Your task to perform on an android device: search for starred emails in the gmail app Image 0: 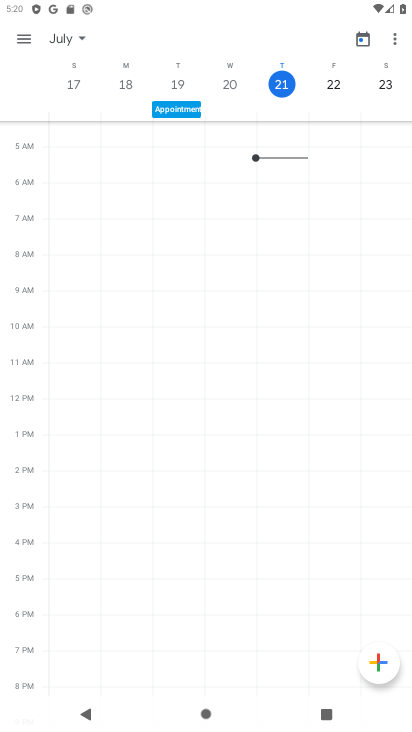
Step 0: press home button
Your task to perform on an android device: search for starred emails in the gmail app Image 1: 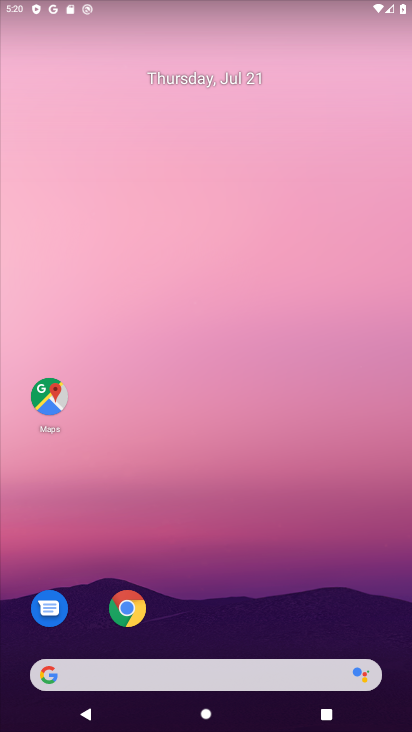
Step 1: drag from (225, 561) to (197, 167)
Your task to perform on an android device: search for starred emails in the gmail app Image 2: 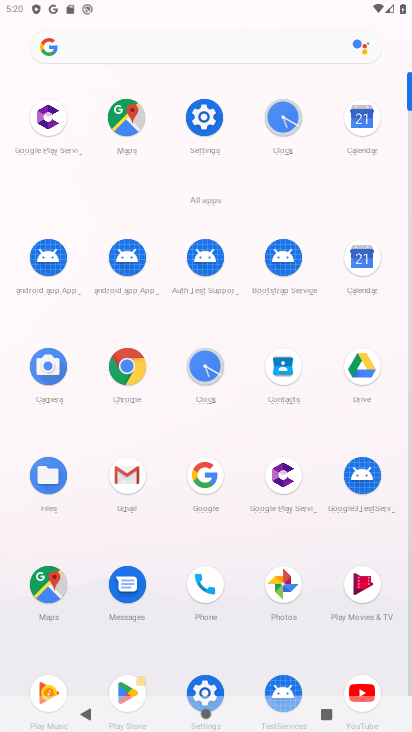
Step 2: click (124, 475)
Your task to perform on an android device: search for starred emails in the gmail app Image 3: 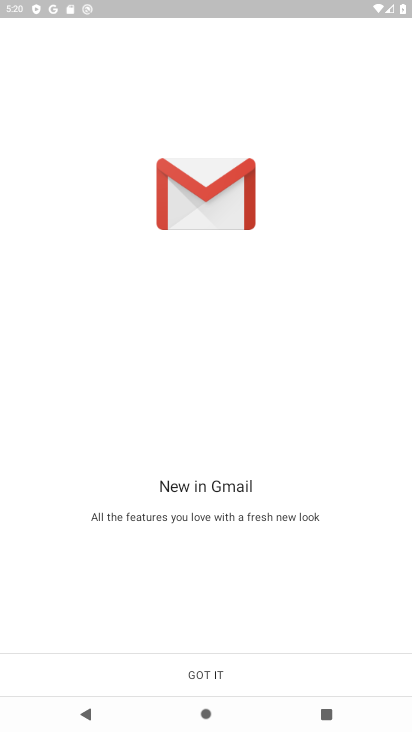
Step 3: click (199, 670)
Your task to perform on an android device: search for starred emails in the gmail app Image 4: 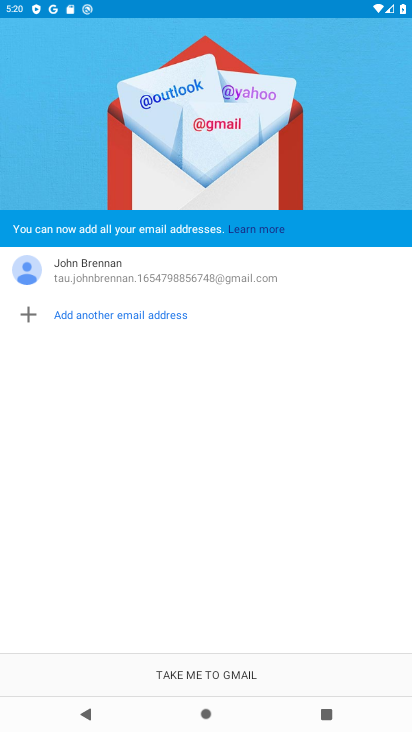
Step 4: click (207, 679)
Your task to perform on an android device: search for starred emails in the gmail app Image 5: 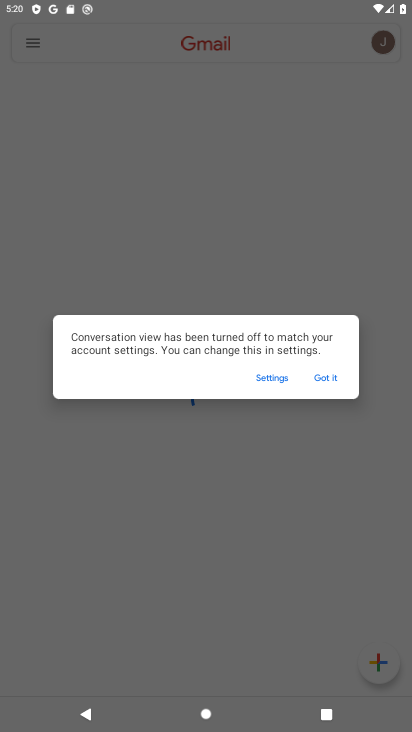
Step 5: click (327, 374)
Your task to perform on an android device: search for starred emails in the gmail app Image 6: 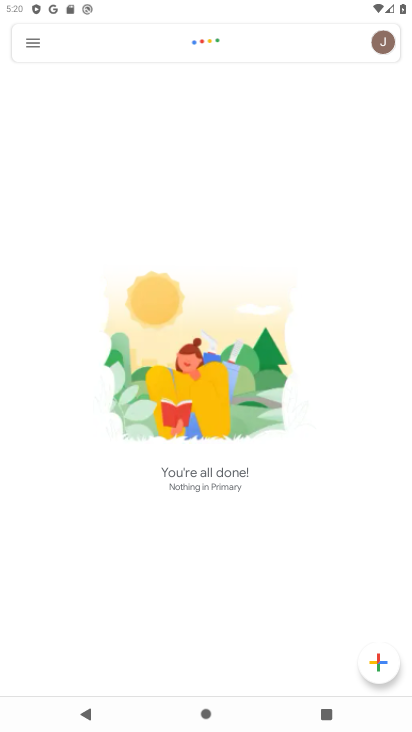
Step 6: click (34, 41)
Your task to perform on an android device: search for starred emails in the gmail app Image 7: 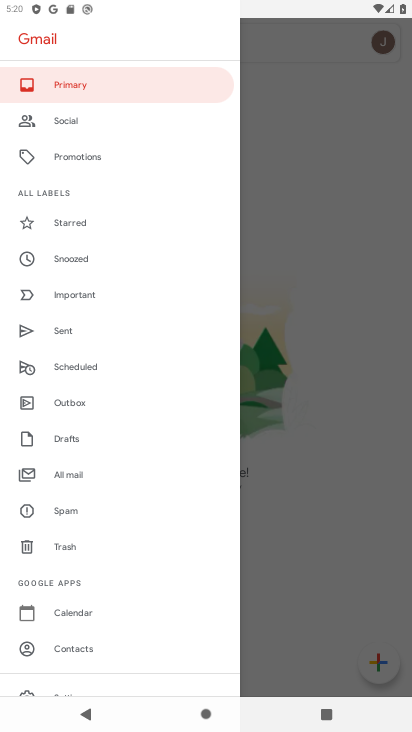
Step 7: click (76, 221)
Your task to perform on an android device: search for starred emails in the gmail app Image 8: 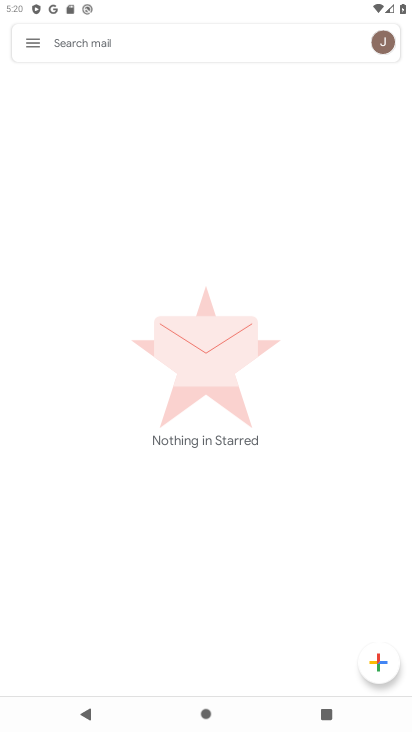
Step 8: task complete